Your task to perform on an android device: turn off data saver in the chrome app Image 0: 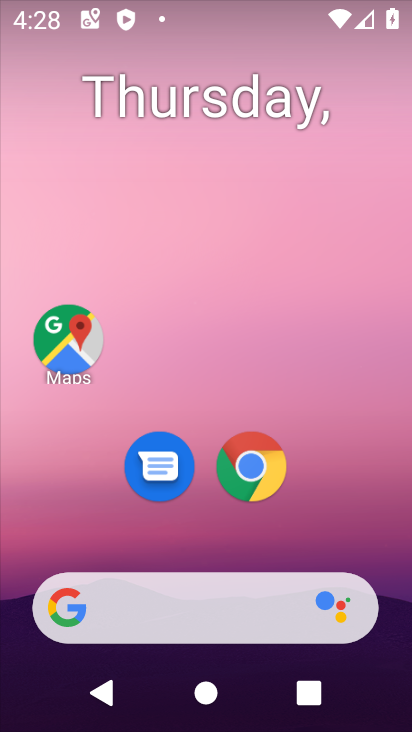
Step 0: click (244, 475)
Your task to perform on an android device: turn off data saver in the chrome app Image 1: 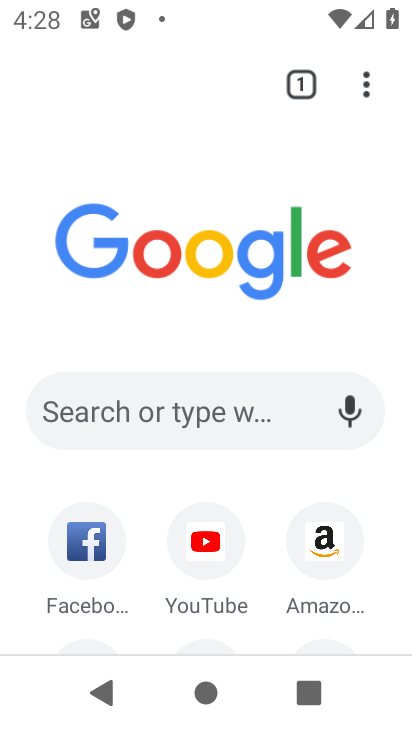
Step 1: click (362, 74)
Your task to perform on an android device: turn off data saver in the chrome app Image 2: 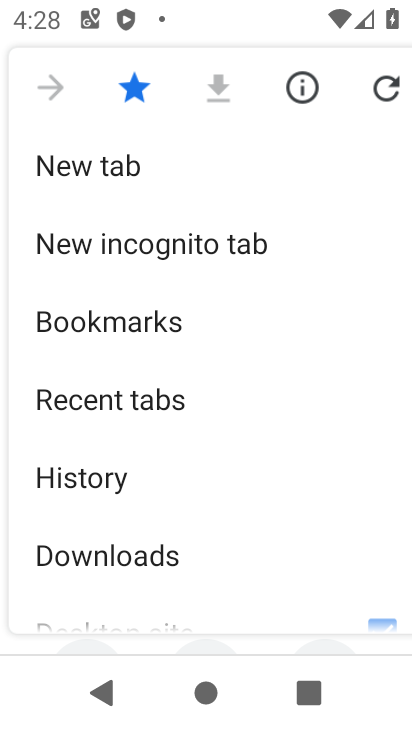
Step 2: drag from (209, 519) to (216, 180)
Your task to perform on an android device: turn off data saver in the chrome app Image 3: 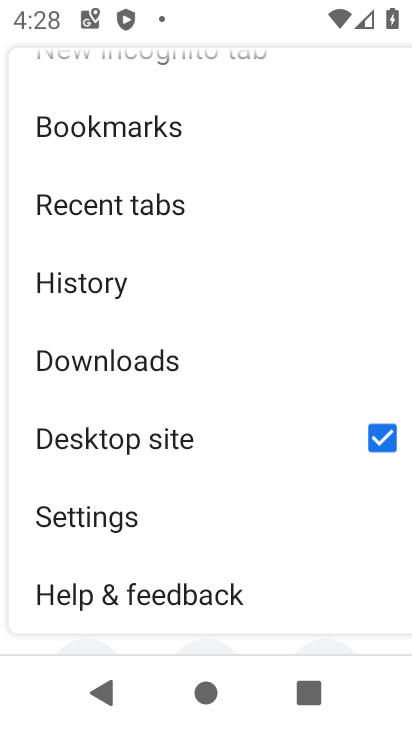
Step 3: click (126, 528)
Your task to perform on an android device: turn off data saver in the chrome app Image 4: 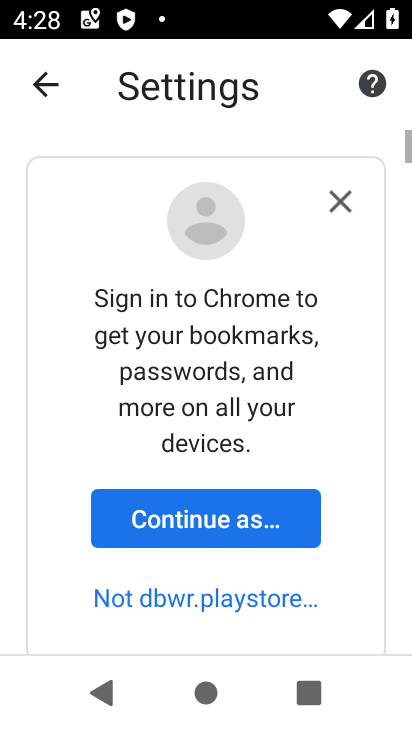
Step 4: drag from (175, 531) to (176, 203)
Your task to perform on an android device: turn off data saver in the chrome app Image 5: 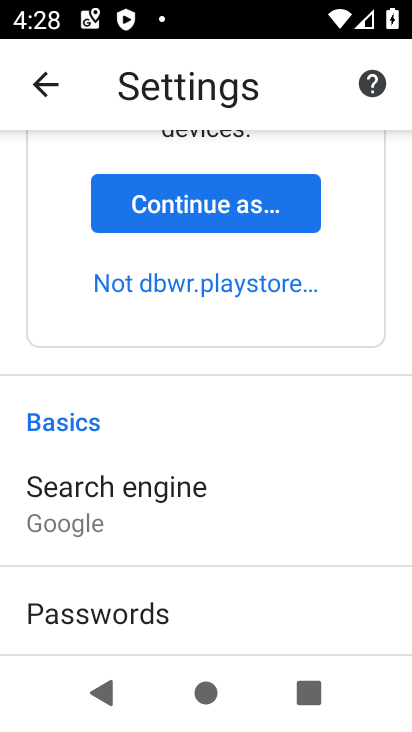
Step 5: drag from (212, 592) to (204, 295)
Your task to perform on an android device: turn off data saver in the chrome app Image 6: 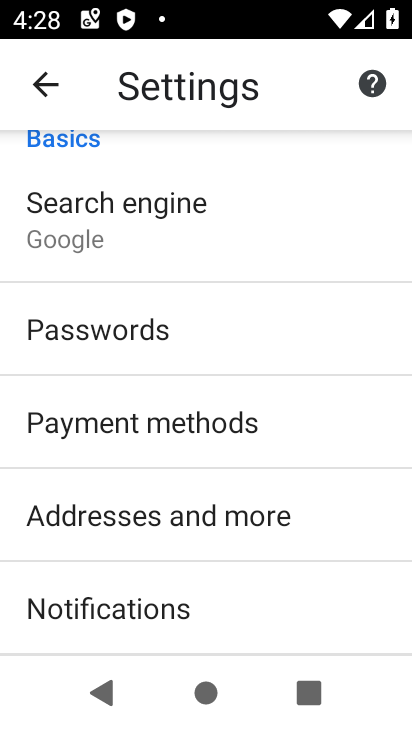
Step 6: drag from (167, 548) to (191, 187)
Your task to perform on an android device: turn off data saver in the chrome app Image 7: 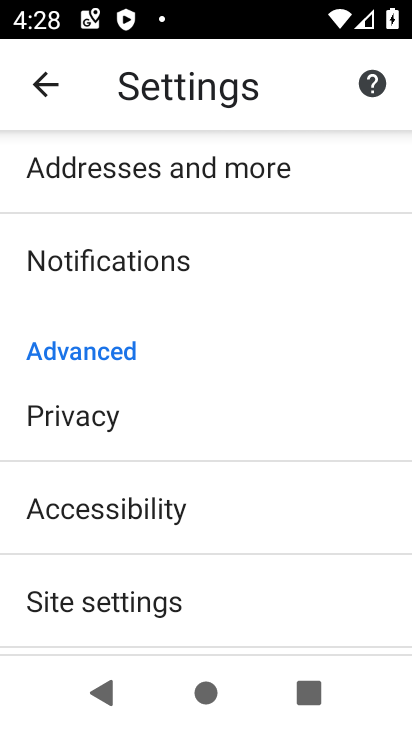
Step 7: drag from (128, 543) to (120, 248)
Your task to perform on an android device: turn off data saver in the chrome app Image 8: 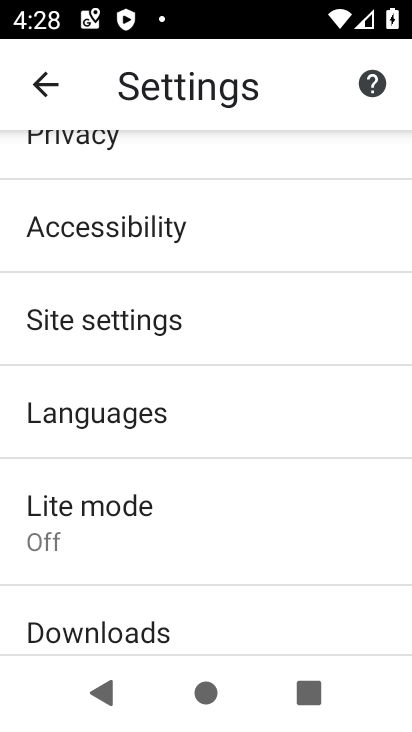
Step 8: click (117, 520)
Your task to perform on an android device: turn off data saver in the chrome app Image 9: 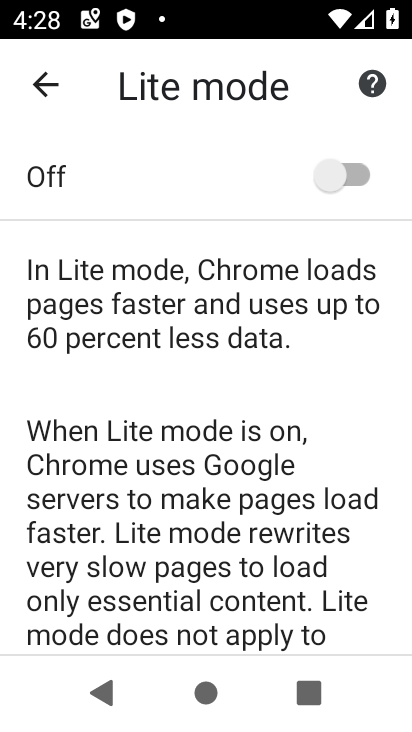
Step 9: task complete